Your task to perform on an android device: Search for a new nail polish Image 0: 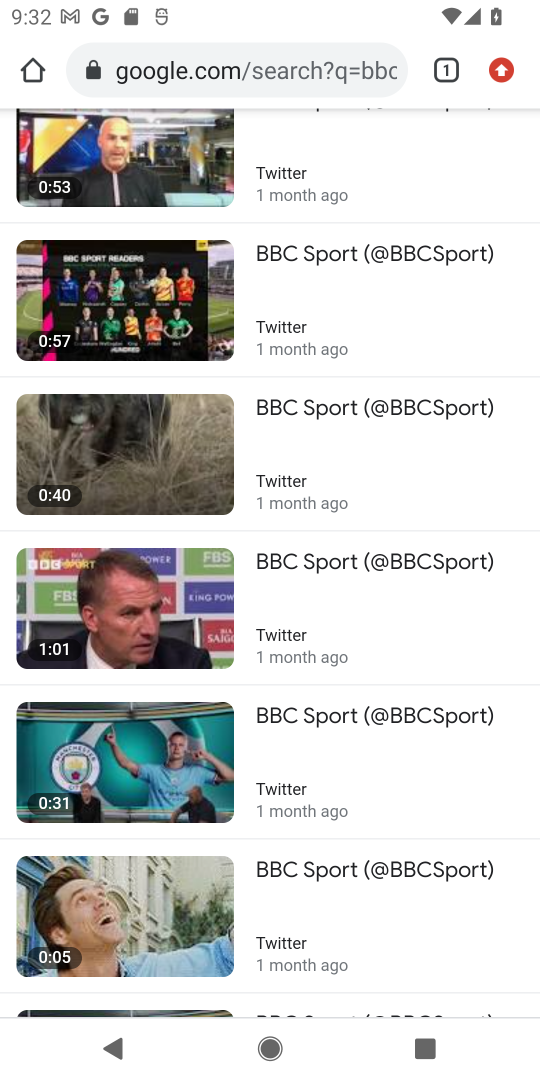
Step 0: press home button
Your task to perform on an android device: Search for a new nail polish Image 1: 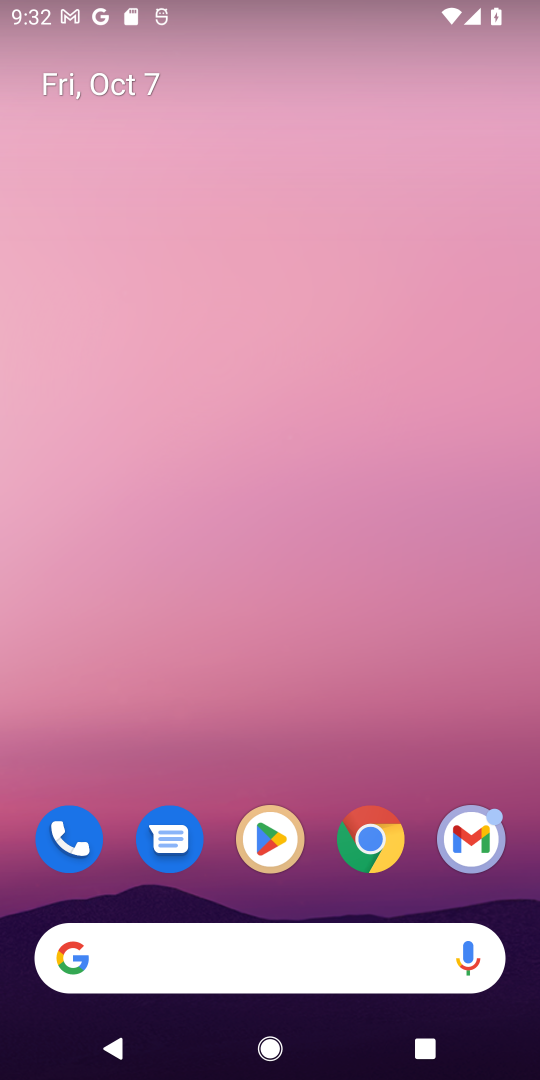
Step 1: click (364, 842)
Your task to perform on an android device: Search for a new nail polish Image 2: 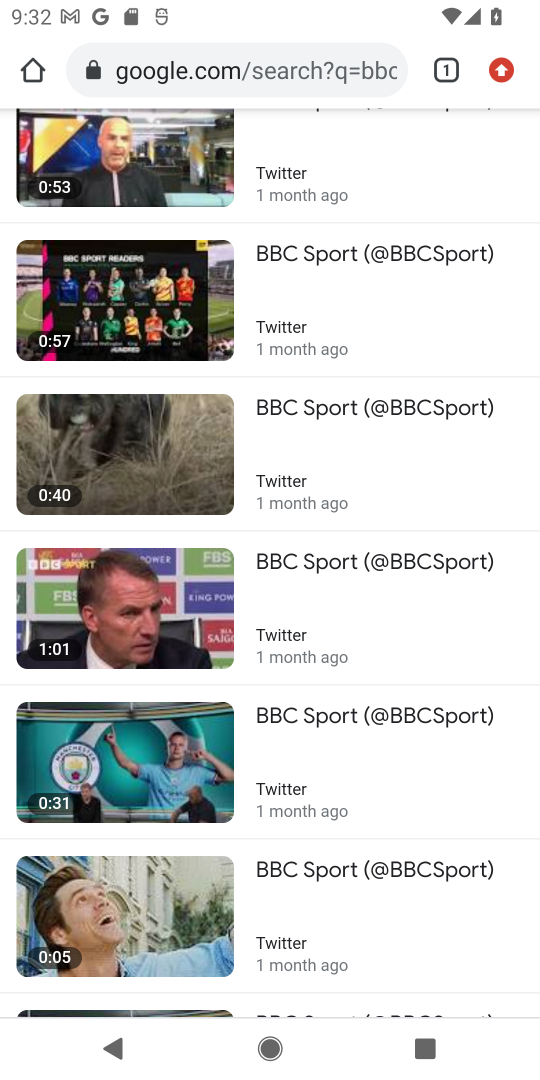
Step 2: click (223, 64)
Your task to perform on an android device: Search for a new nail polish Image 3: 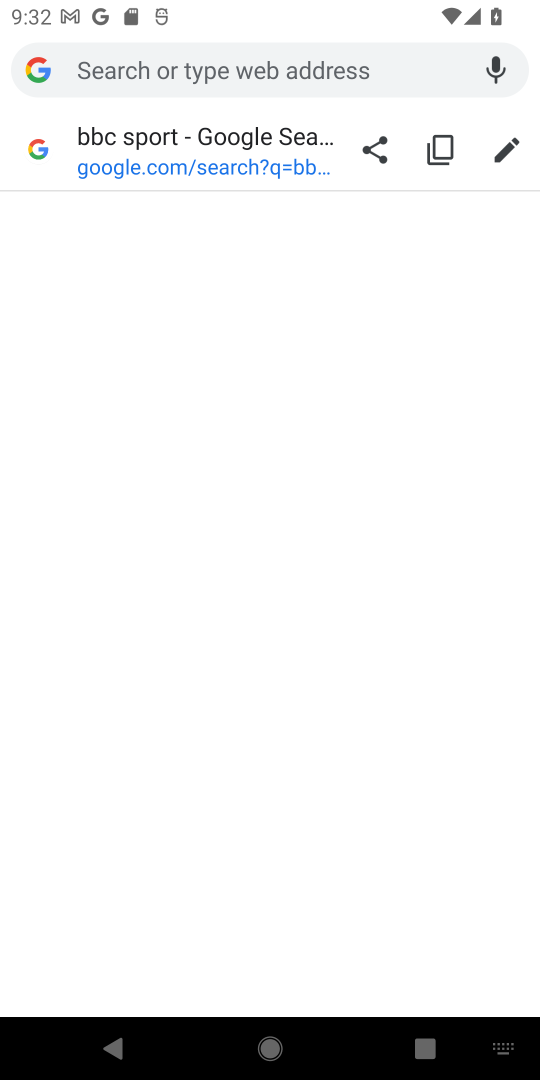
Step 3: type "new nail polish"
Your task to perform on an android device: Search for a new nail polish Image 4: 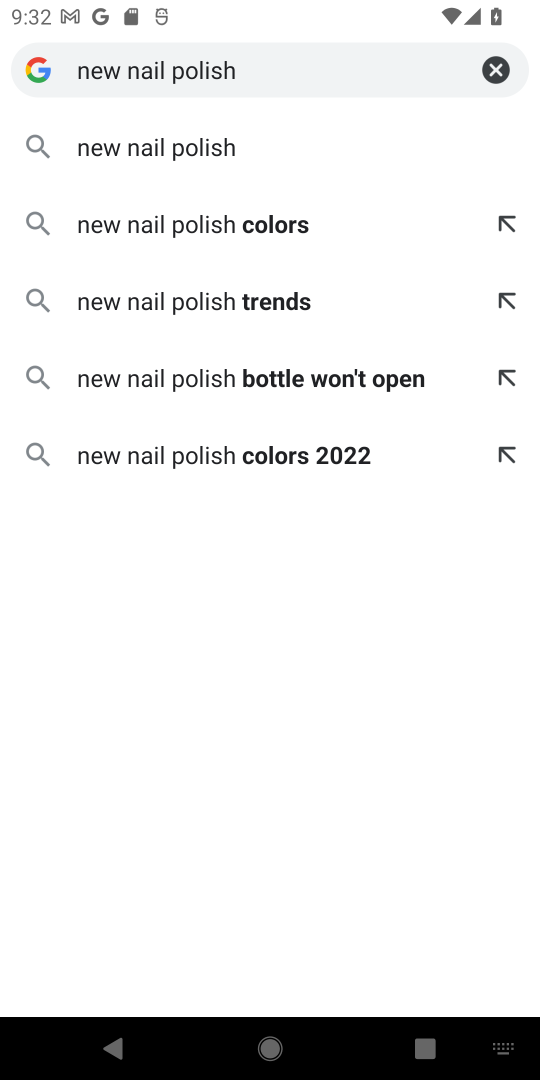
Step 4: click (143, 138)
Your task to perform on an android device: Search for a new nail polish Image 5: 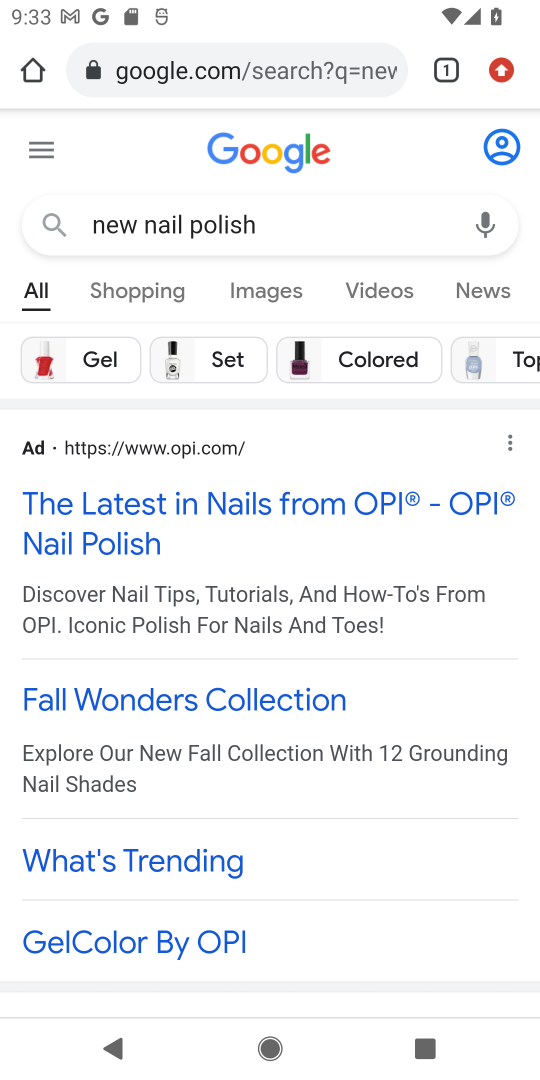
Step 5: drag from (305, 782) to (392, 393)
Your task to perform on an android device: Search for a new nail polish Image 6: 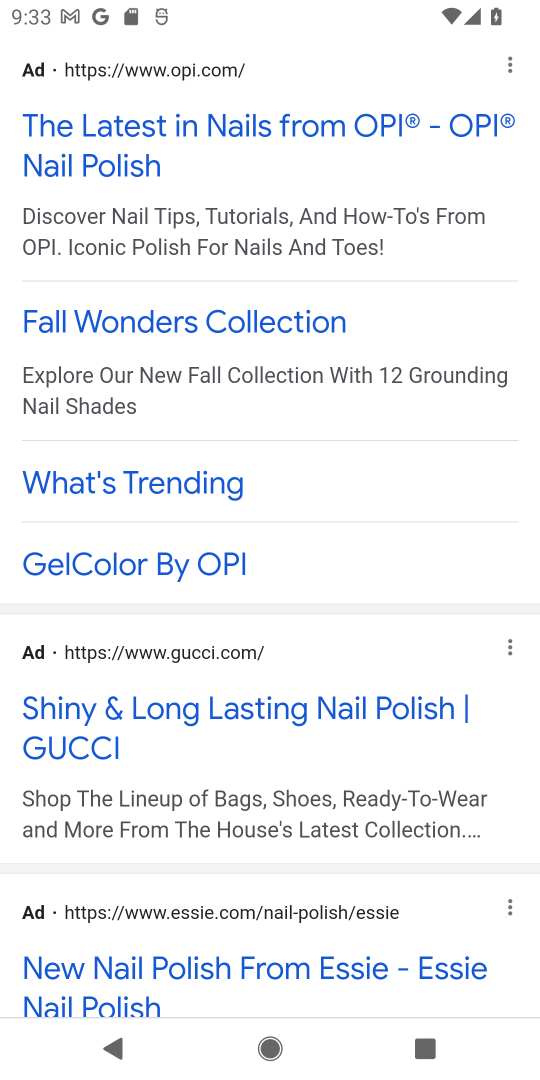
Step 6: drag from (319, 469) to (312, 1071)
Your task to perform on an android device: Search for a new nail polish Image 7: 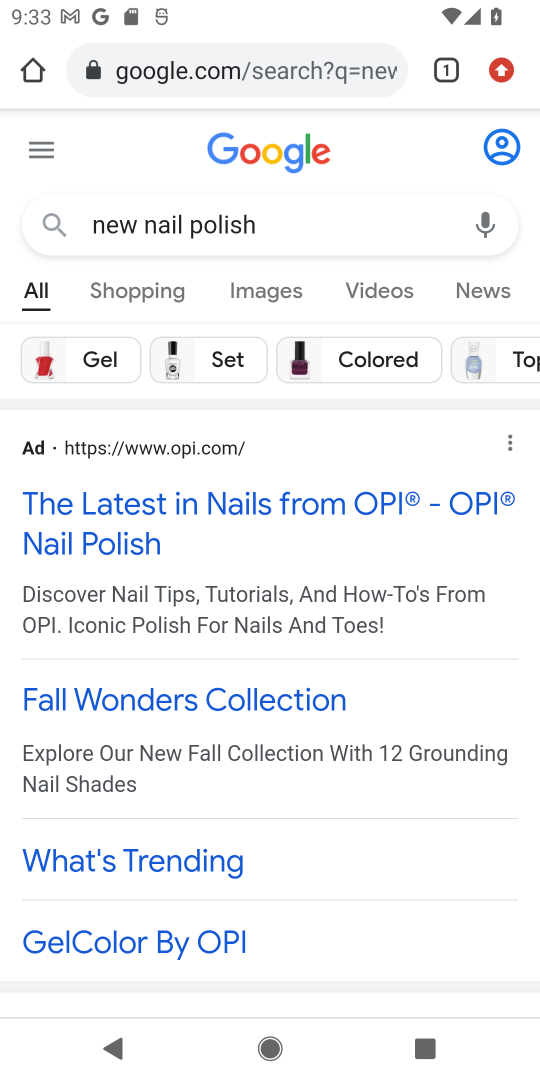
Step 7: click (269, 296)
Your task to perform on an android device: Search for a new nail polish Image 8: 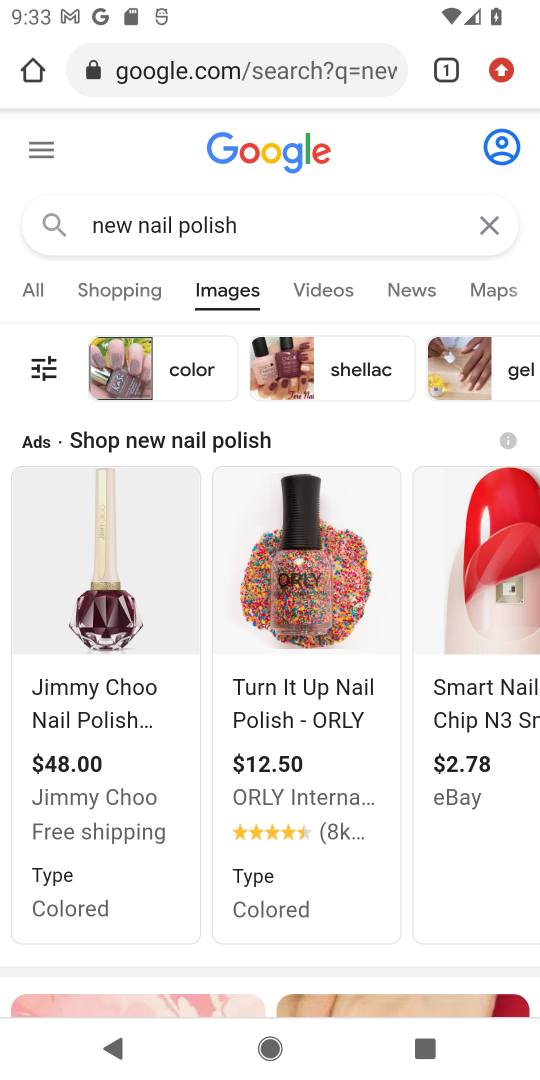
Step 8: task complete